Your task to perform on an android device: turn off wifi Image 0: 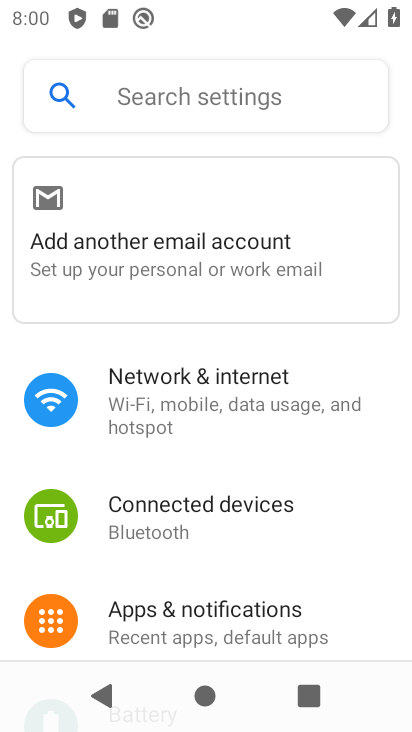
Step 0: click (267, 378)
Your task to perform on an android device: turn off wifi Image 1: 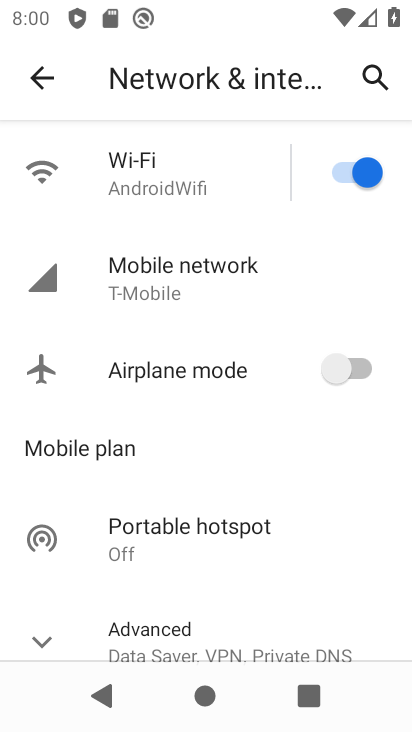
Step 1: click (334, 163)
Your task to perform on an android device: turn off wifi Image 2: 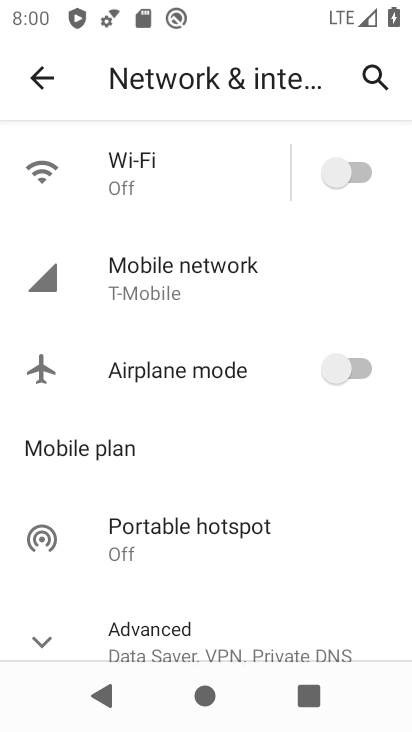
Step 2: task complete